Your task to perform on an android device: make emails show in primary in the gmail app Image 0: 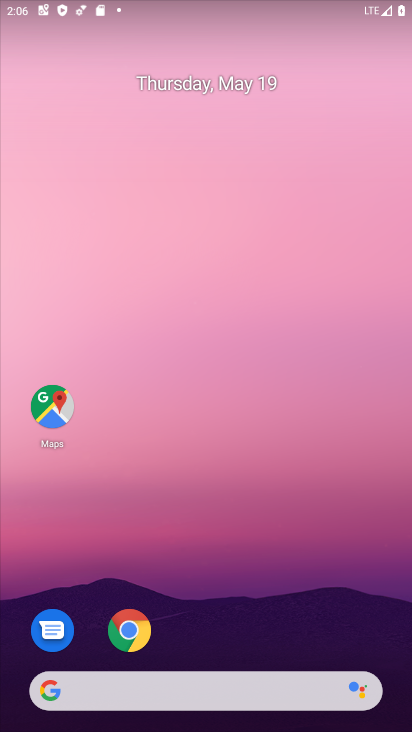
Step 0: drag from (388, 665) to (280, 67)
Your task to perform on an android device: make emails show in primary in the gmail app Image 1: 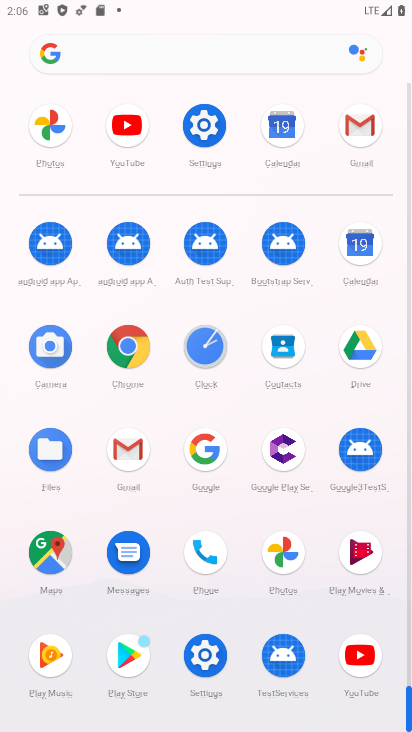
Step 1: click (126, 447)
Your task to perform on an android device: make emails show in primary in the gmail app Image 2: 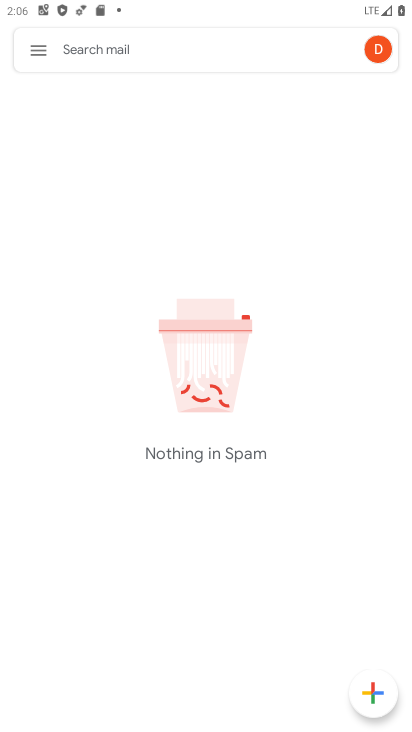
Step 2: click (40, 48)
Your task to perform on an android device: make emails show in primary in the gmail app Image 3: 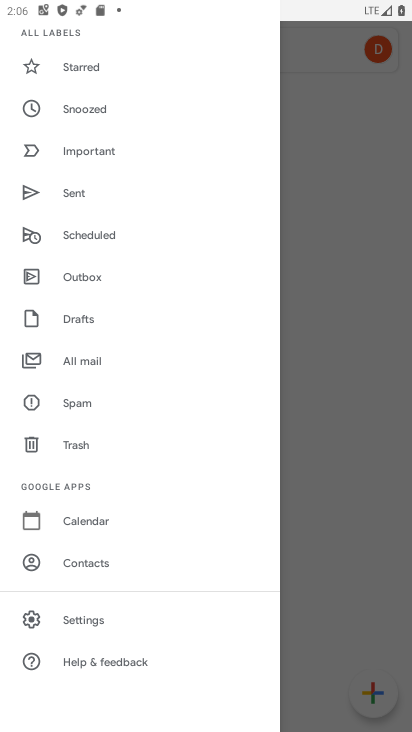
Step 3: drag from (190, 240) to (208, 109)
Your task to perform on an android device: make emails show in primary in the gmail app Image 4: 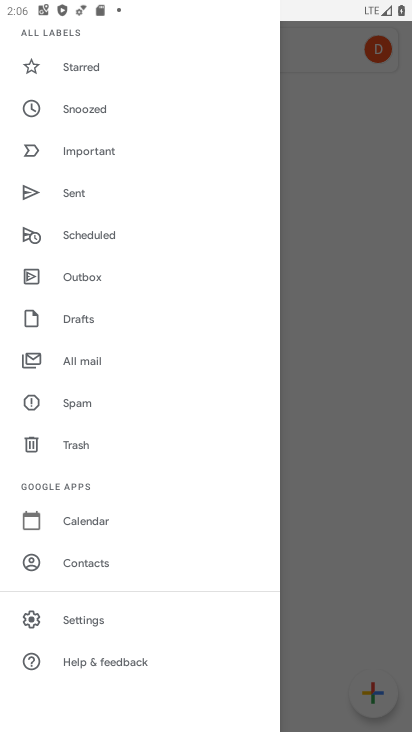
Step 4: click (81, 623)
Your task to perform on an android device: make emails show in primary in the gmail app Image 5: 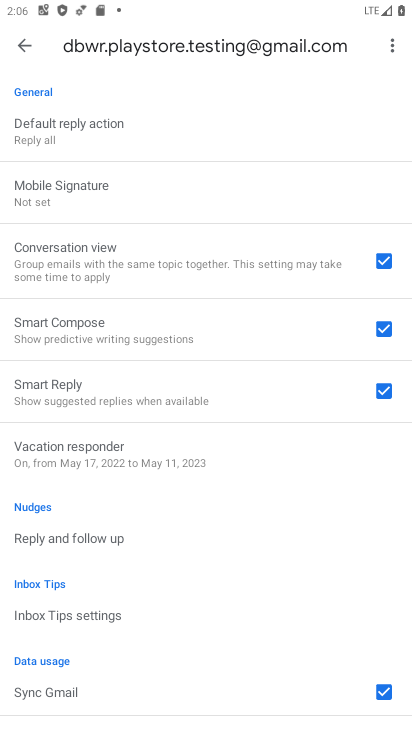
Step 5: drag from (215, 661) to (217, 717)
Your task to perform on an android device: make emails show in primary in the gmail app Image 6: 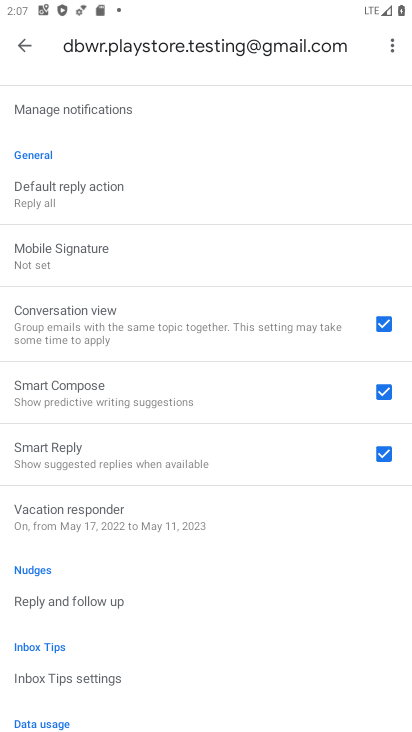
Step 6: drag from (239, 203) to (233, 453)
Your task to perform on an android device: make emails show in primary in the gmail app Image 7: 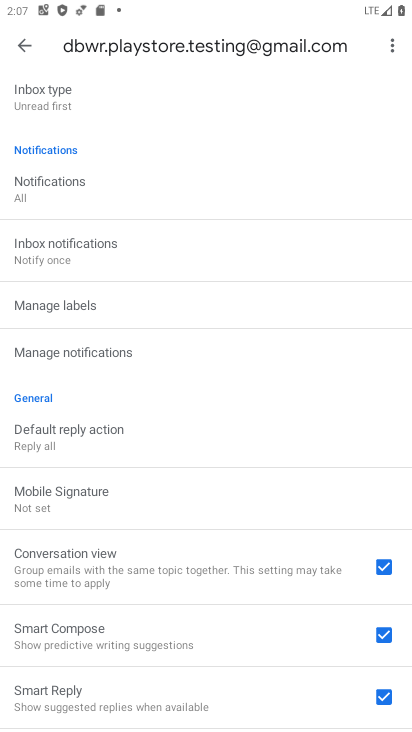
Step 7: drag from (152, 134) to (162, 360)
Your task to perform on an android device: make emails show in primary in the gmail app Image 8: 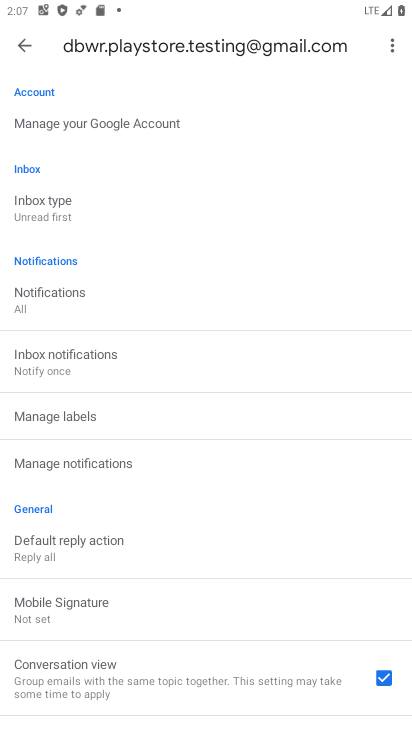
Step 8: click (30, 196)
Your task to perform on an android device: make emails show in primary in the gmail app Image 9: 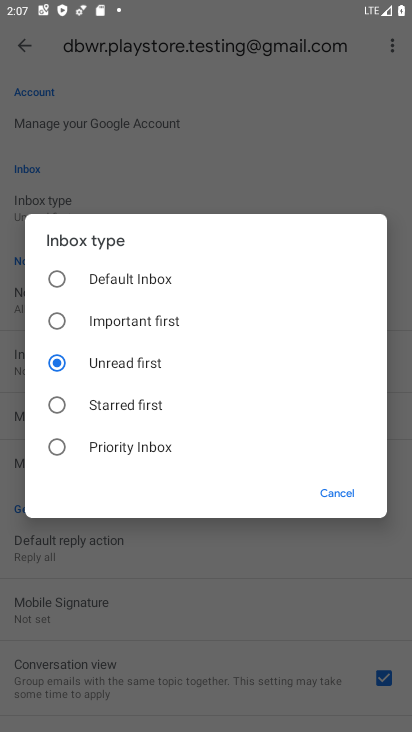
Step 9: click (55, 278)
Your task to perform on an android device: make emails show in primary in the gmail app Image 10: 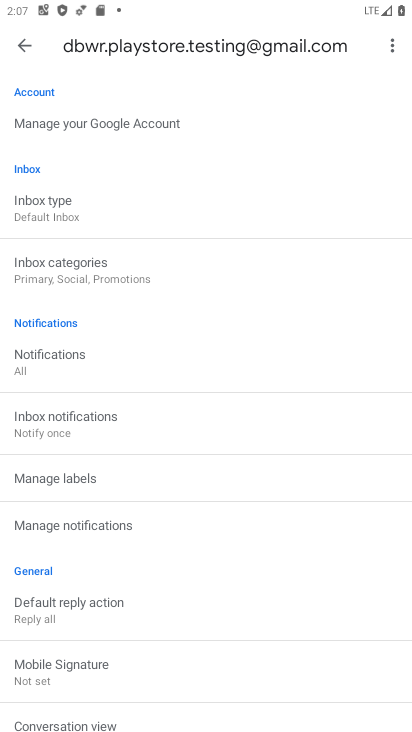
Step 10: click (62, 275)
Your task to perform on an android device: make emails show in primary in the gmail app Image 11: 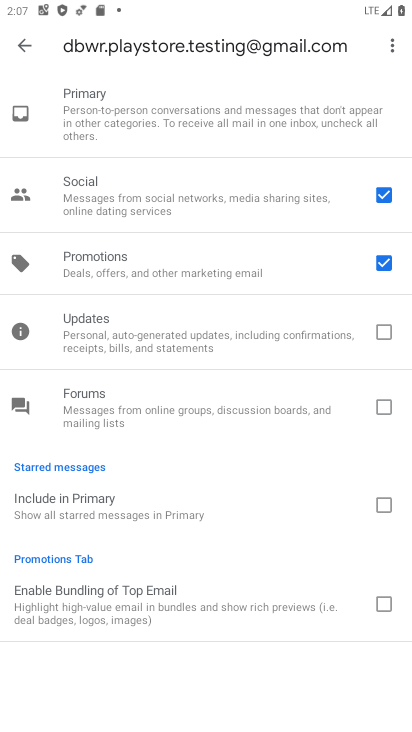
Step 11: click (387, 261)
Your task to perform on an android device: make emails show in primary in the gmail app Image 12: 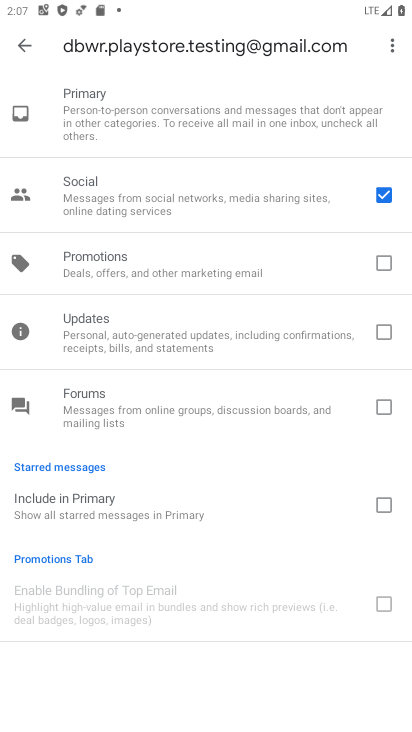
Step 12: click (378, 196)
Your task to perform on an android device: make emails show in primary in the gmail app Image 13: 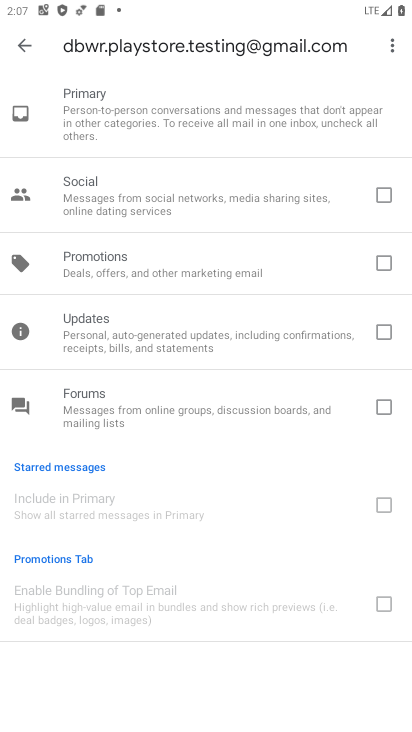
Step 13: task complete